Your task to perform on an android device: show emergency info Image 0: 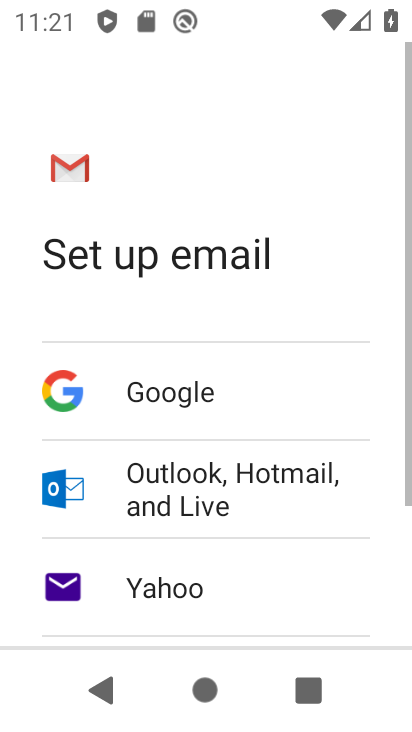
Step 0: press home button
Your task to perform on an android device: show emergency info Image 1: 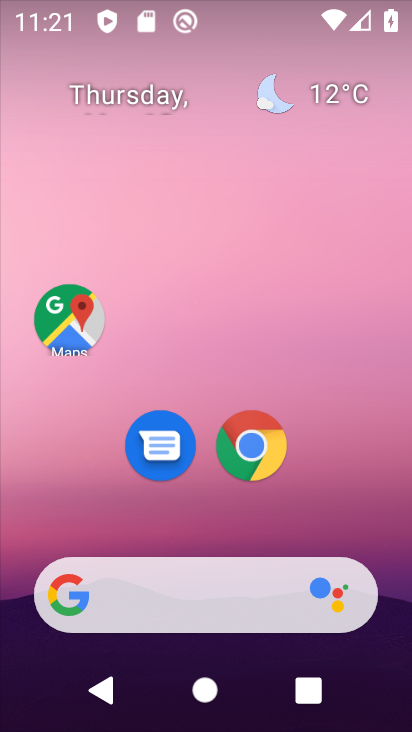
Step 1: drag from (203, 604) to (289, 219)
Your task to perform on an android device: show emergency info Image 2: 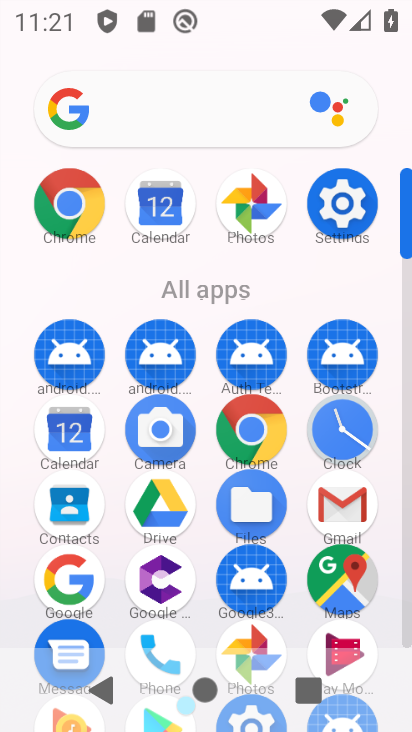
Step 2: click (341, 201)
Your task to perform on an android device: show emergency info Image 3: 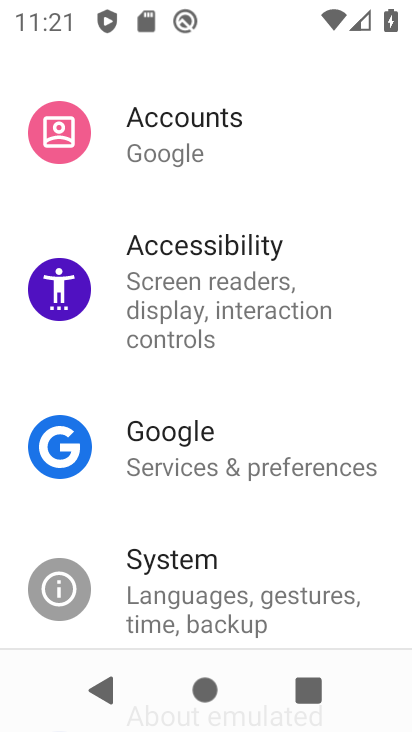
Step 3: drag from (139, 561) to (141, 88)
Your task to perform on an android device: show emergency info Image 4: 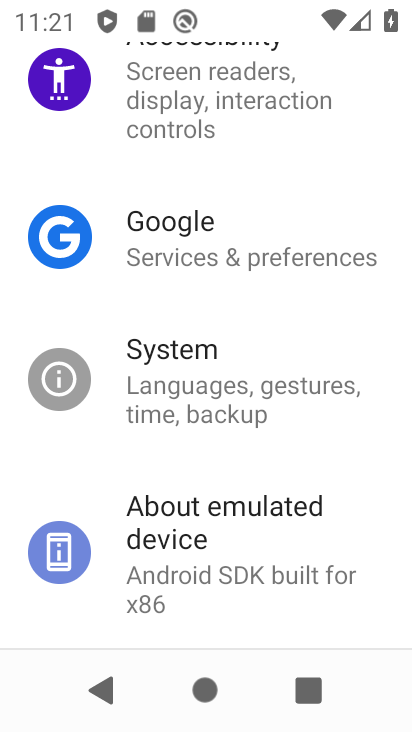
Step 4: click (136, 551)
Your task to perform on an android device: show emergency info Image 5: 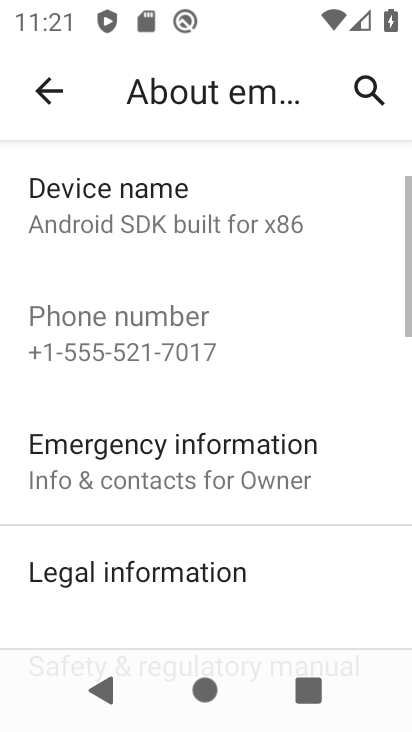
Step 5: click (148, 444)
Your task to perform on an android device: show emergency info Image 6: 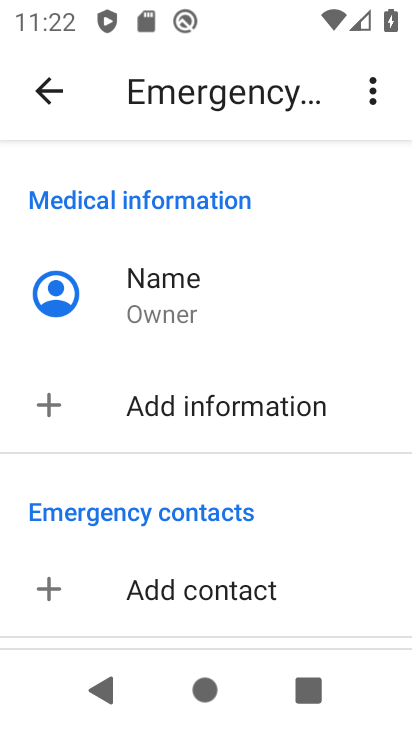
Step 6: task complete